Your task to perform on an android device: Open battery settings Image 0: 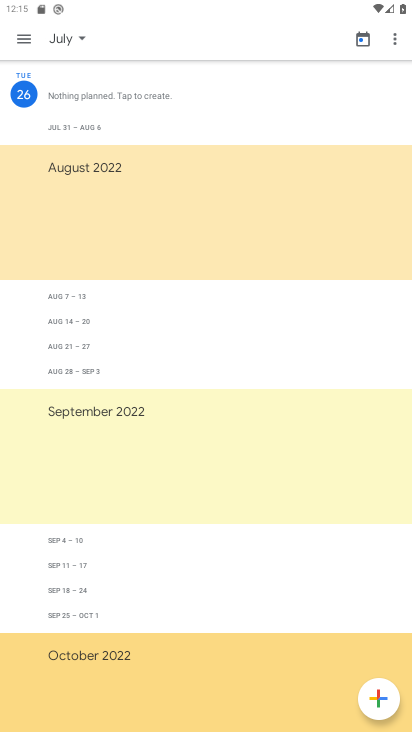
Step 0: press home button
Your task to perform on an android device: Open battery settings Image 1: 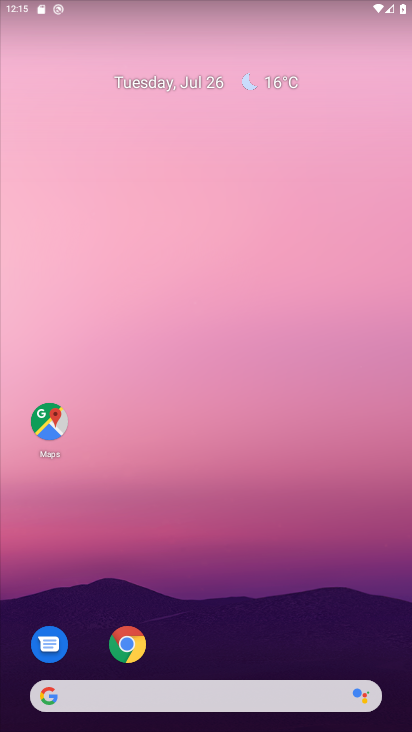
Step 1: drag from (228, 641) to (189, 176)
Your task to perform on an android device: Open battery settings Image 2: 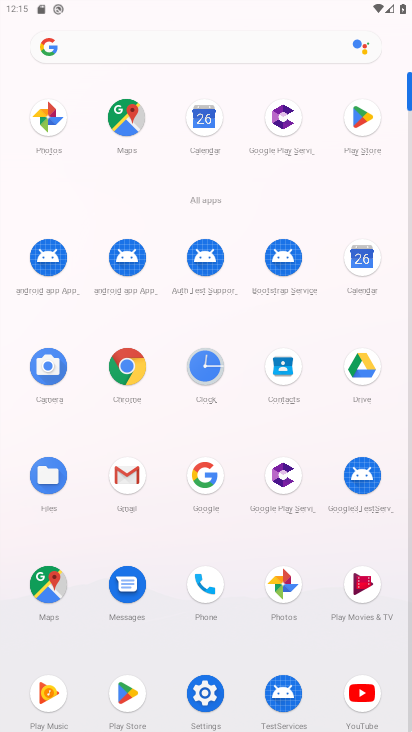
Step 2: click (194, 693)
Your task to perform on an android device: Open battery settings Image 3: 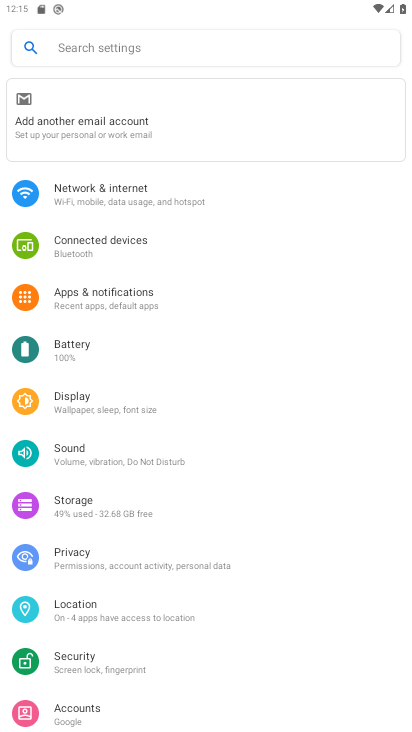
Step 3: click (132, 345)
Your task to perform on an android device: Open battery settings Image 4: 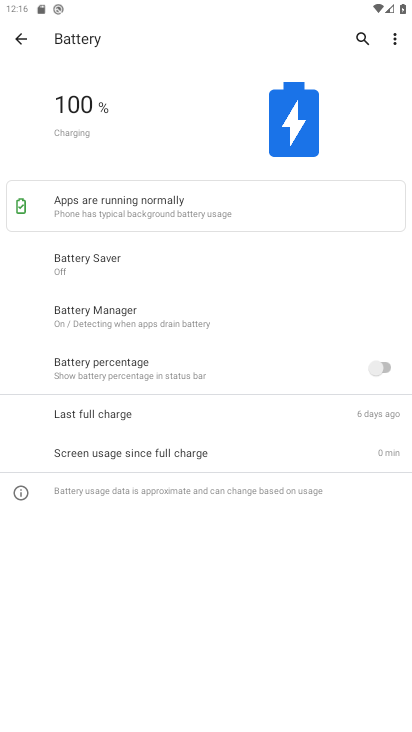
Step 4: task complete